Your task to perform on an android device: remove spam from my inbox in the gmail app Image 0: 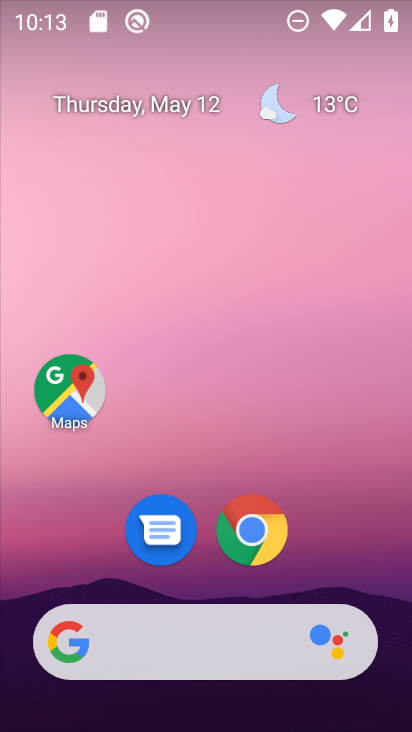
Step 0: drag from (295, 496) to (316, 51)
Your task to perform on an android device: remove spam from my inbox in the gmail app Image 1: 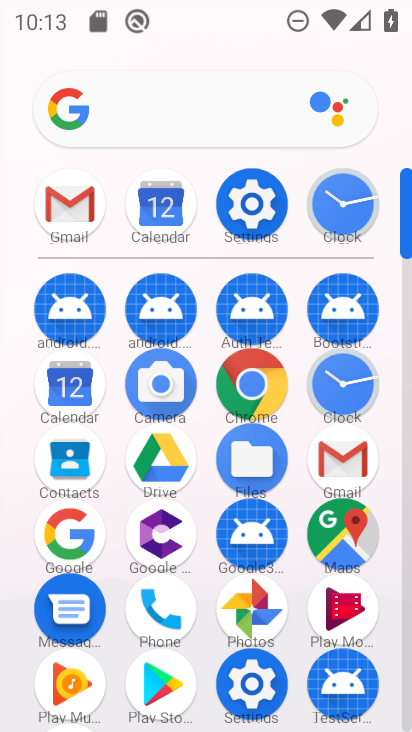
Step 1: click (340, 465)
Your task to perform on an android device: remove spam from my inbox in the gmail app Image 2: 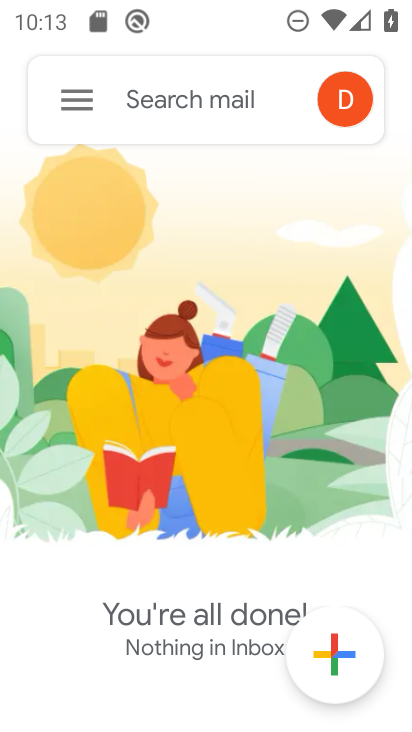
Step 2: click (80, 104)
Your task to perform on an android device: remove spam from my inbox in the gmail app Image 3: 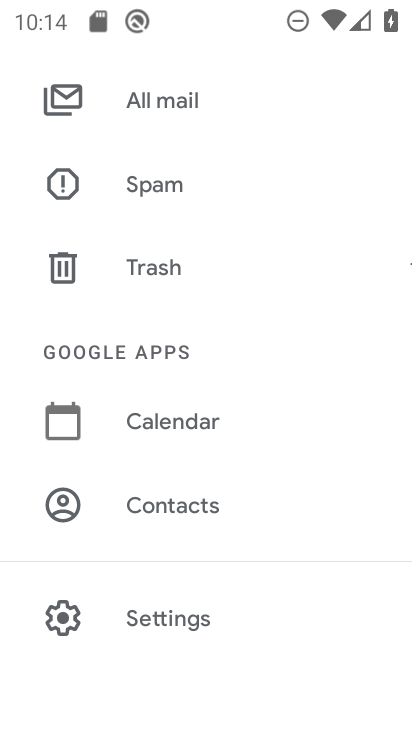
Step 3: click (185, 189)
Your task to perform on an android device: remove spam from my inbox in the gmail app Image 4: 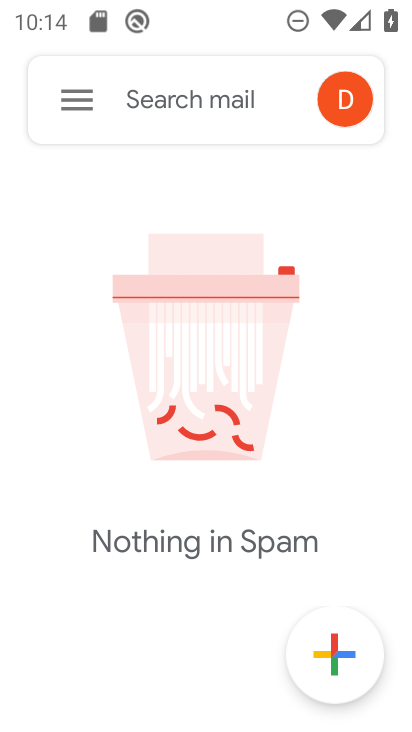
Step 4: task complete